Your task to perform on an android device: toggle show notifications on the lock screen Image 0: 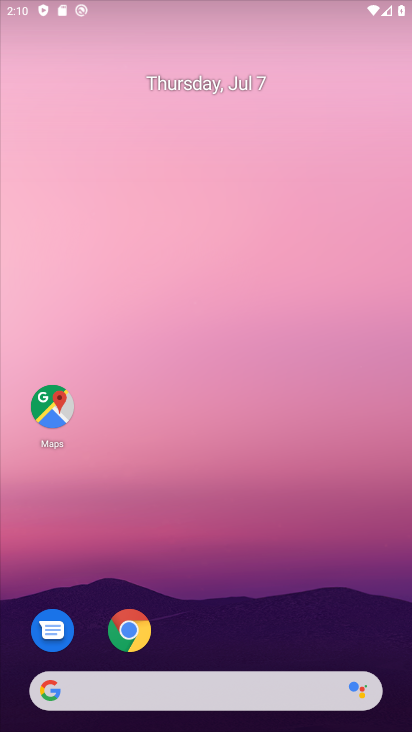
Step 0: drag from (234, 587) to (248, 148)
Your task to perform on an android device: toggle show notifications on the lock screen Image 1: 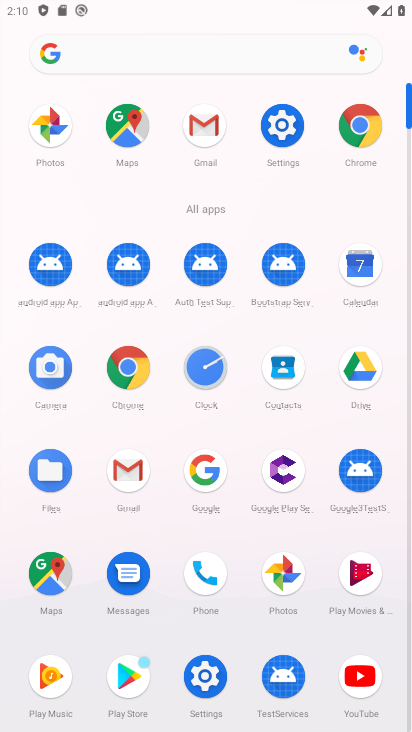
Step 1: click (276, 112)
Your task to perform on an android device: toggle show notifications on the lock screen Image 2: 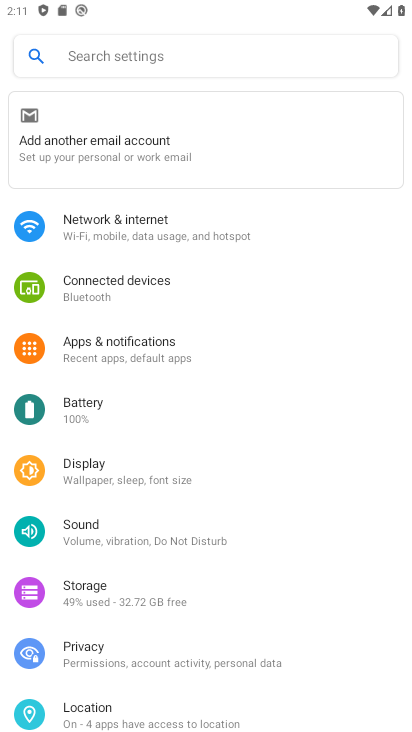
Step 2: click (158, 353)
Your task to perform on an android device: toggle show notifications on the lock screen Image 3: 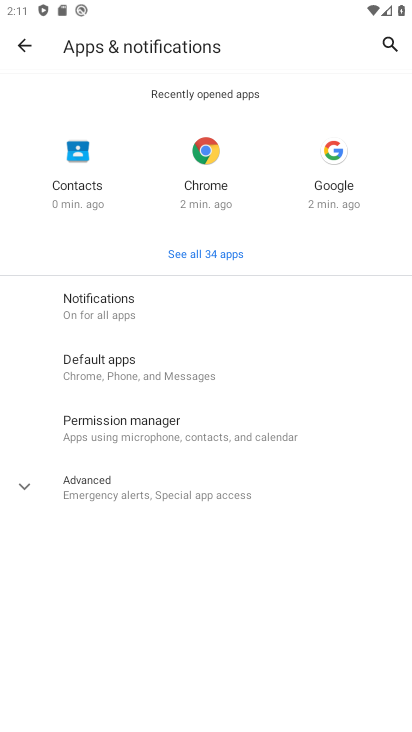
Step 3: click (166, 295)
Your task to perform on an android device: toggle show notifications on the lock screen Image 4: 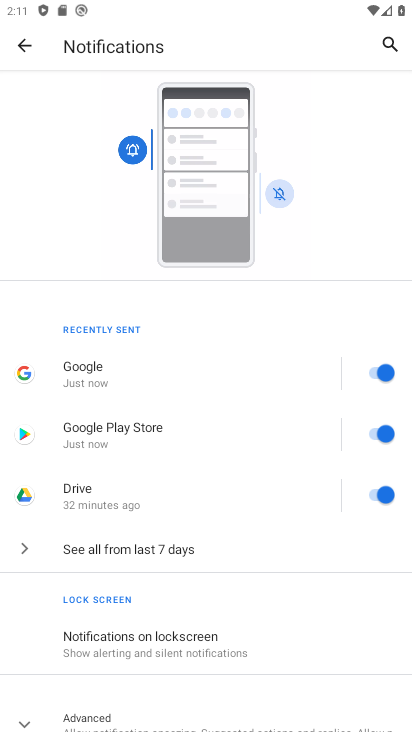
Step 4: click (153, 642)
Your task to perform on an android device: toggle show notifications on the lock screen Image 5: 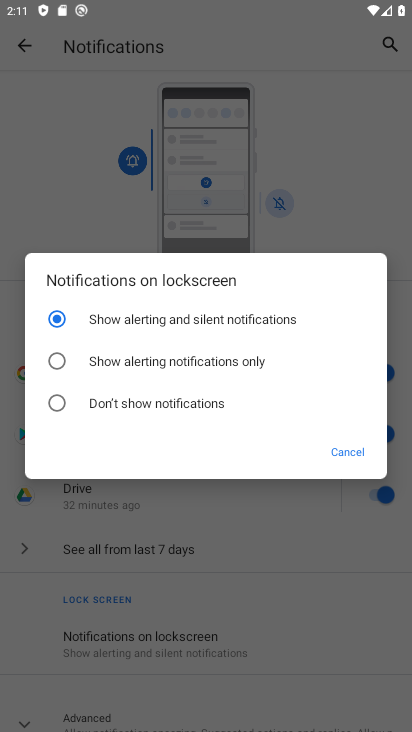
Step 5: click (122, 398)
Your task to perform on an android device: toggle show notifications on the lock screen Image 6: 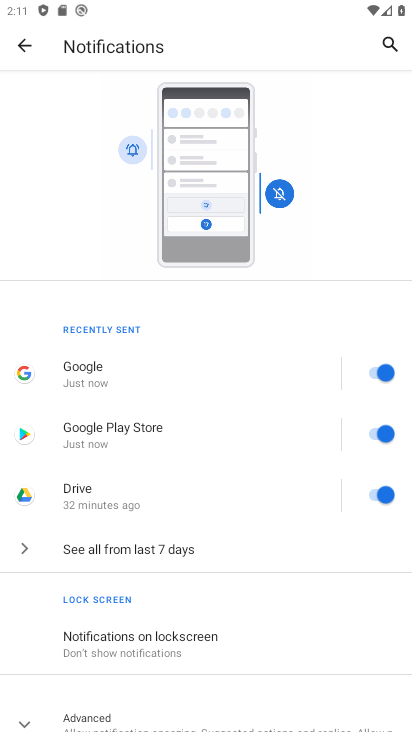
Step 6: task complete